Your task to perform on an android device: toggle show notifications on the lock screen Image 0: 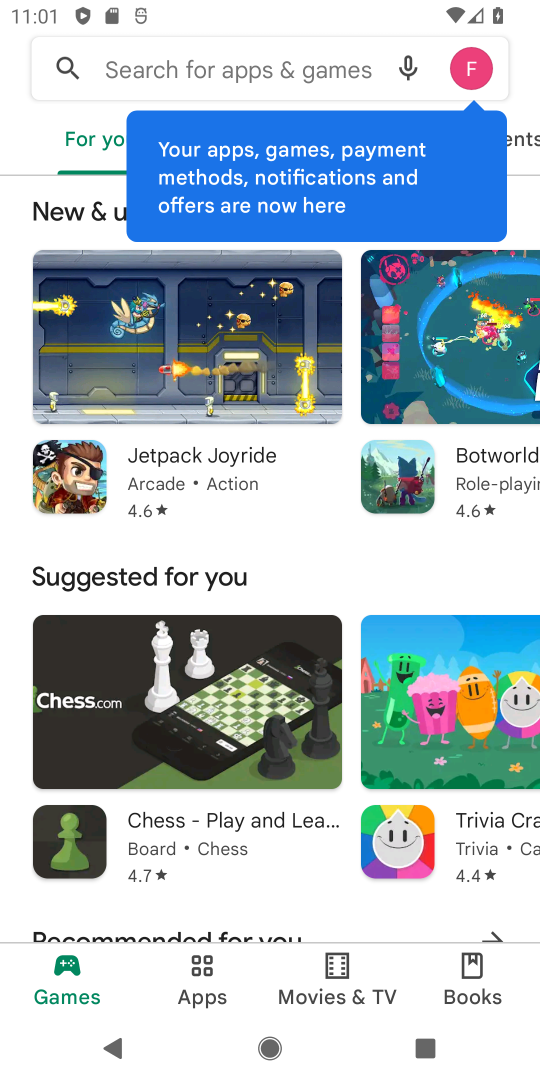
Step 0: press home button
Your task to perform on an android device: toggle show notifications on the lock screen Image 1: 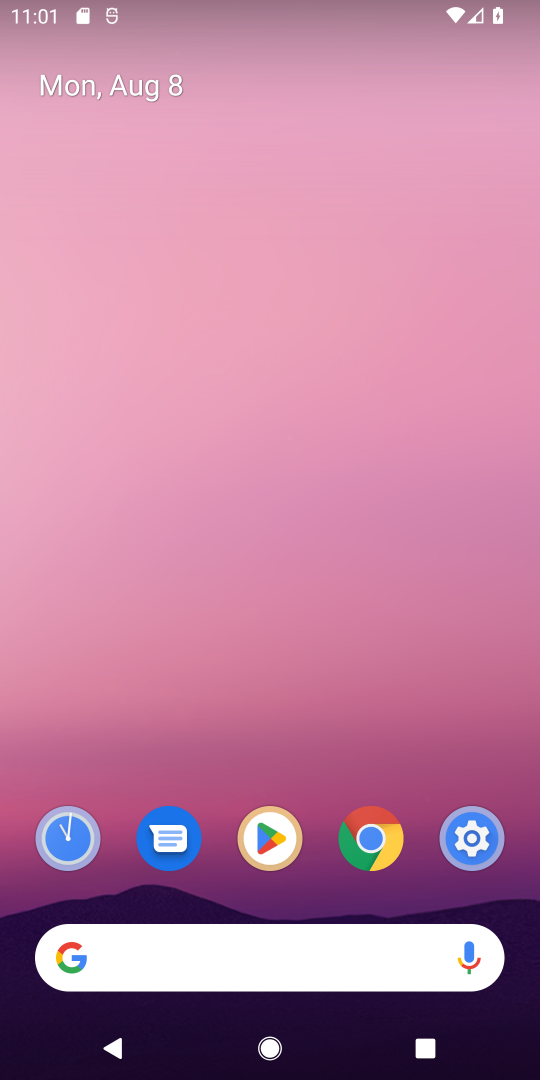
Step 1: drag from (427, 789) to (360, 201)
Your task to perform on an android device: toggle show notifications on the lock screen Image 2: 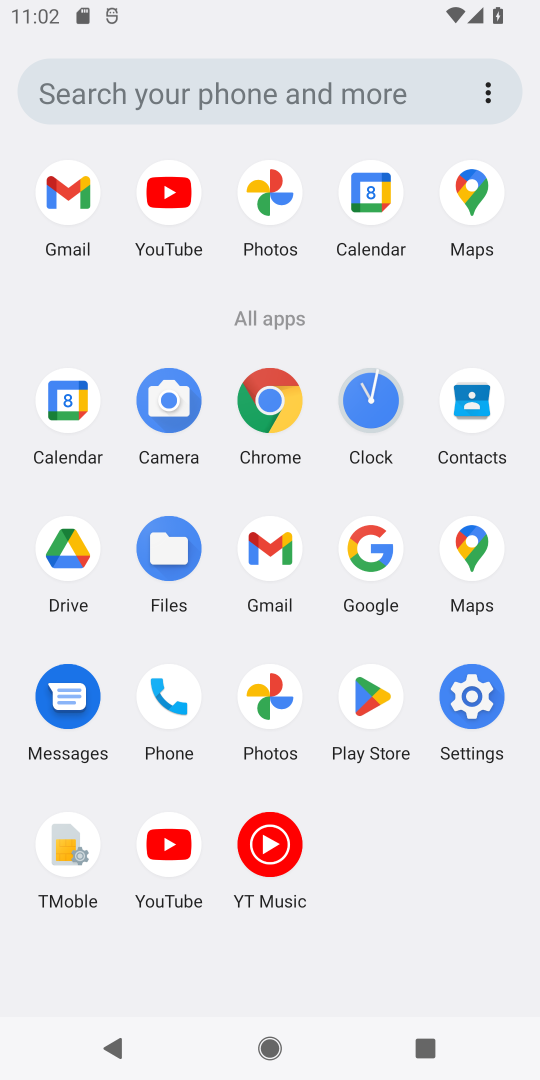
Step 2: click (488, 712)
Your task to perform on an android device: toggle show notifications on the lock screen Image 3: 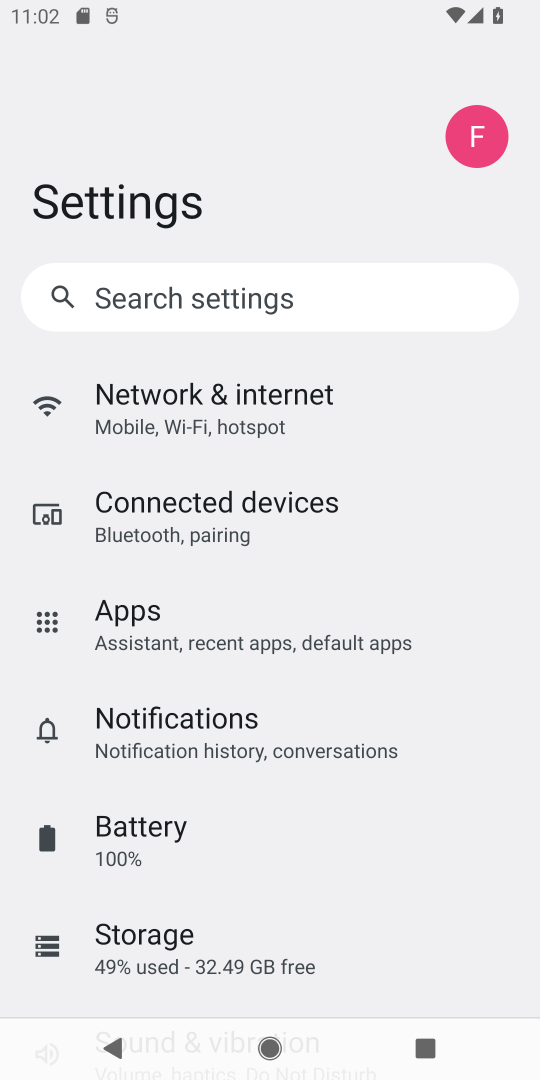
Step 3: click (238, 721)
Your task to perform on an android device: toggle show notifications on the lock screen Image 4: 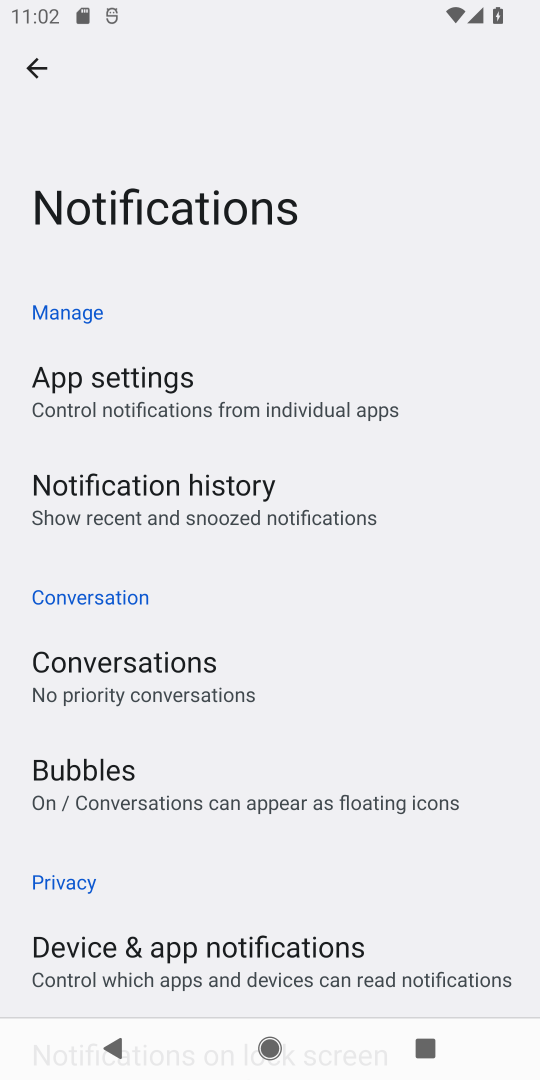
Step 4: drag from (319, 811) to (262, 421)
Your task to perform on an android device: toggle show notifications on the lock screen Image 5: 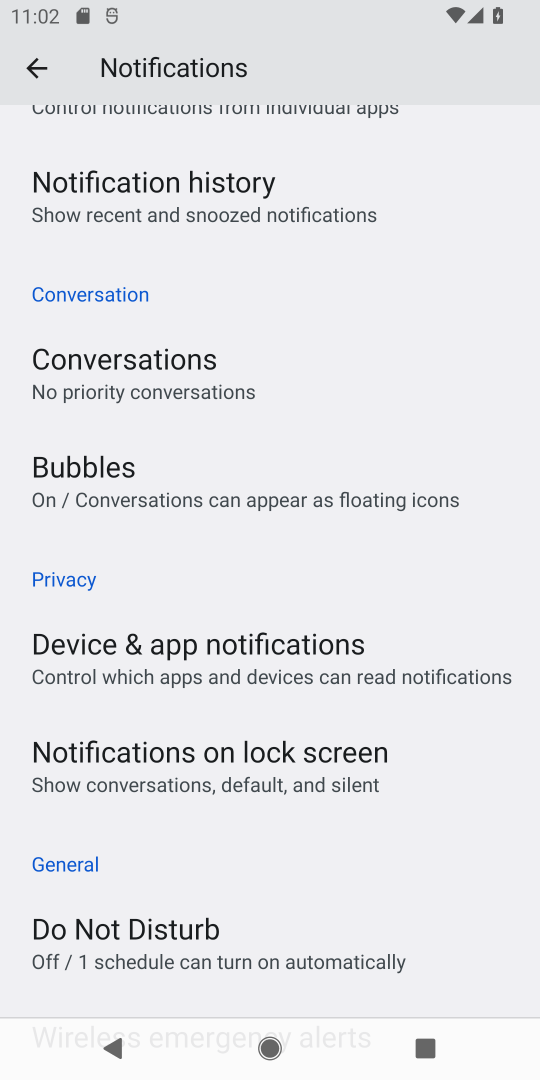
Step 5: click (150, 751)
Your task to perform on an android device: toggle show notifications on the lock screen Image 6: 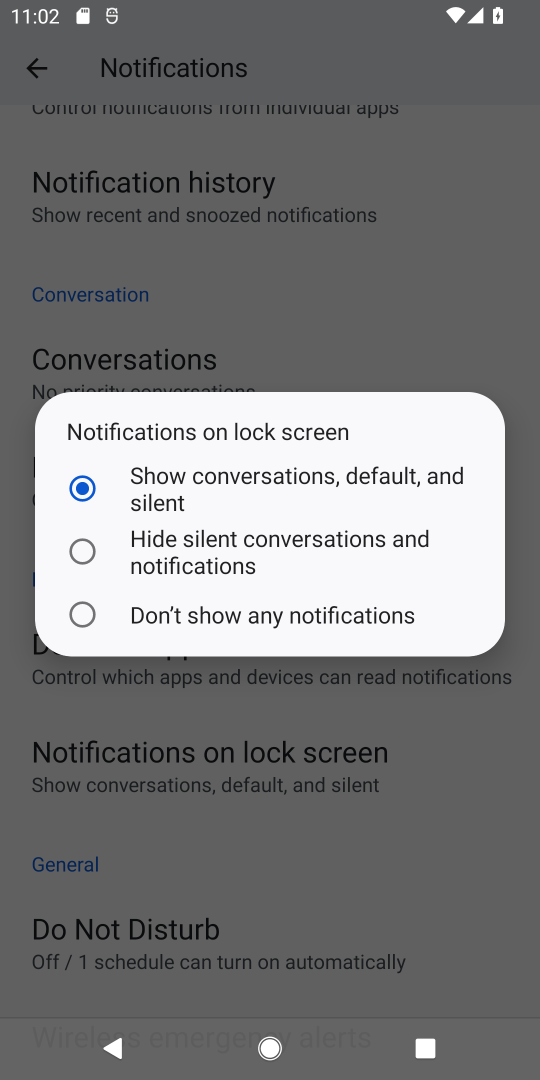
Step 6: click (207, 609)
Your task to perform on an android device: toggle show notifications on the lock screen Image 7: 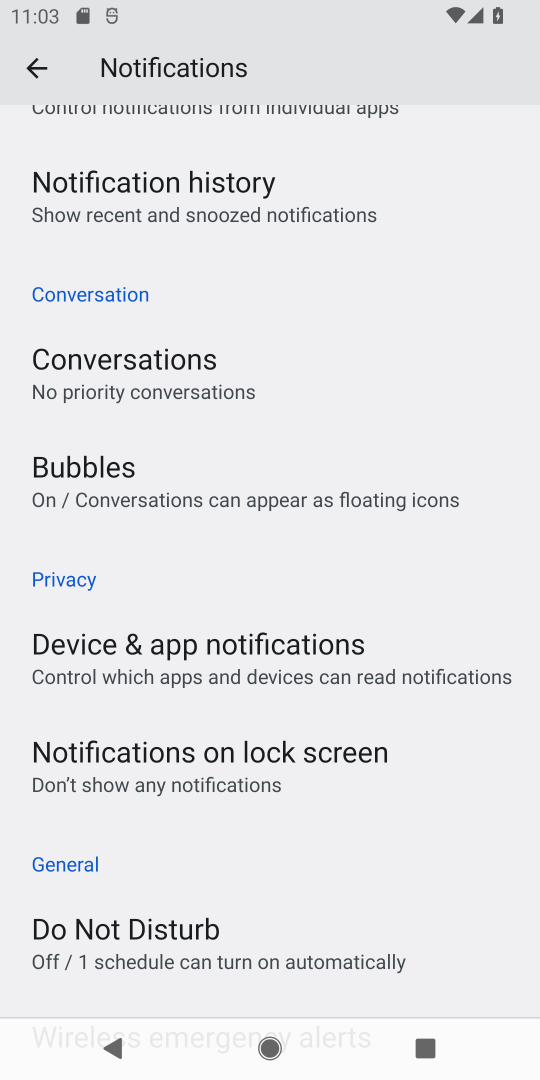
Step 7: task complete